Your task to perform on an android device: find snoozed emails in the gmail app Image 0: 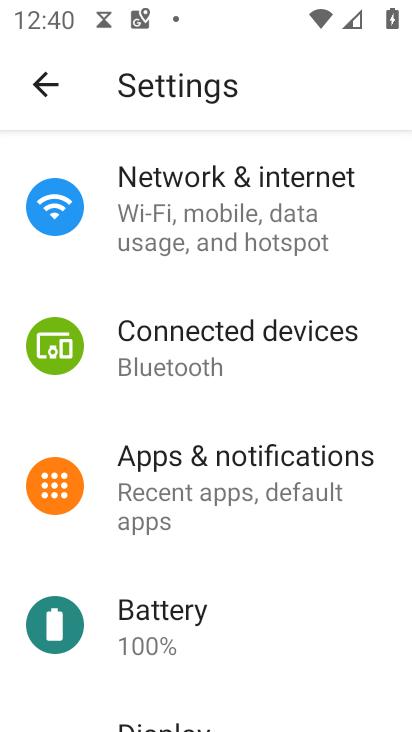
Step 0: press home button
Your task to perform on an android device: find snoozed emails in the gmail app Image 1: 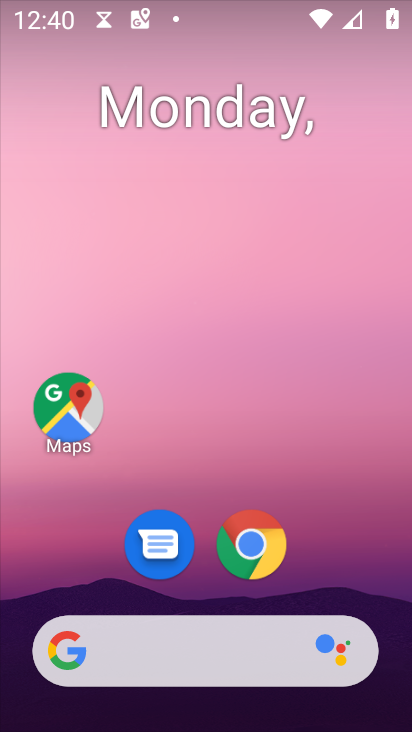
Step 1: drag from (305, 574) to (288, 307)
Your task to perform on an android device: find snoozed emails in the gmail app Image 2: 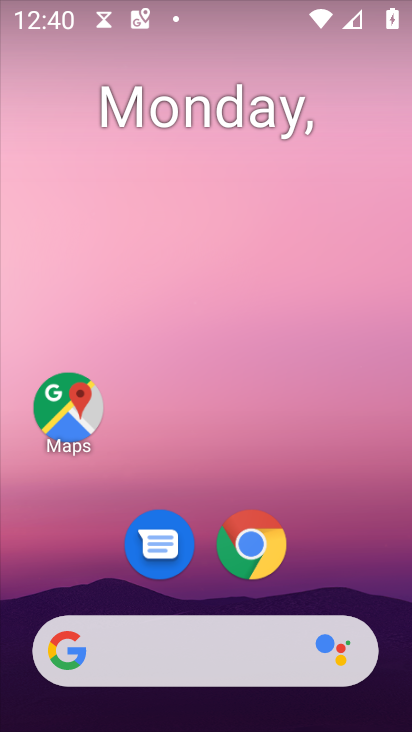
Step 2: drag from (337, 572) to (340, 230)
Your task to perform on an android device: find snoozed emails in the gmail app Image 3: 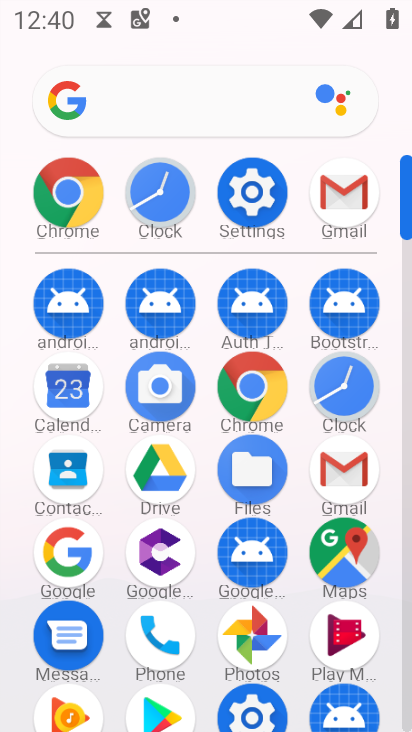
Step 3: click (335, 187)
Your task to perform on an android device: find snoozed emails in the gmail app Image 4: 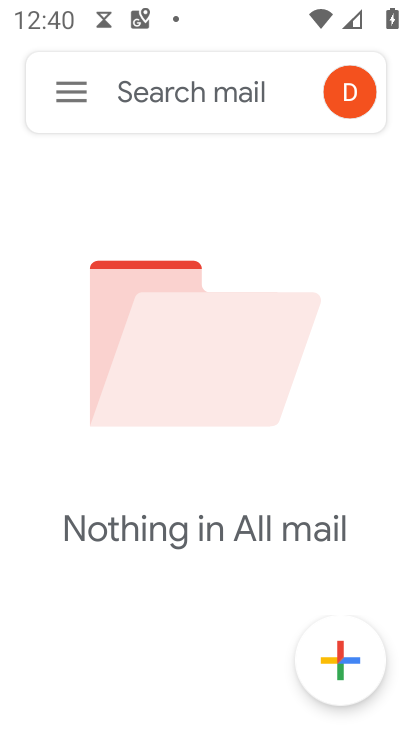
Step 4: click (64, 89)
Your task to perform on an android device: find snoozed emails in the gmail app Image 5: 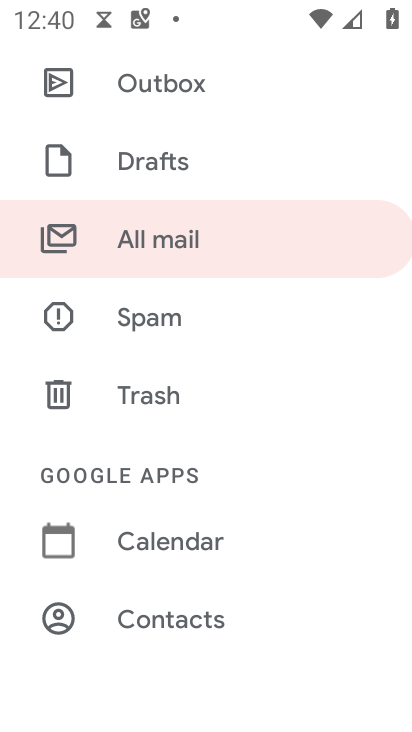
Step 5: drag from (184, 532) to (232, 113)
Your task to perform on an android device: find snoozed emails in the gmail app Image 6: 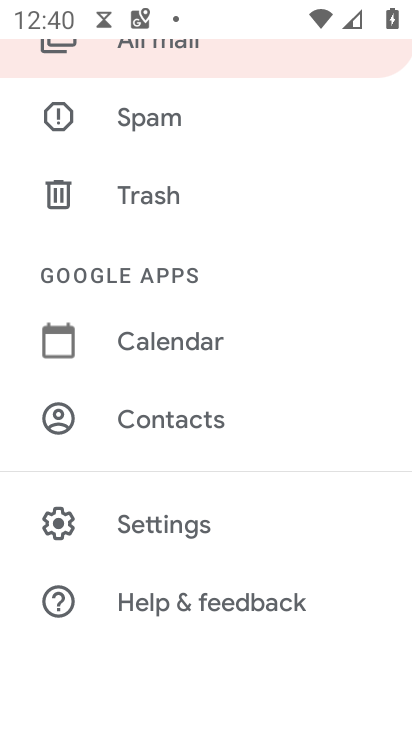
Step 6: drag from (229, 153) to (239, 401)
Your task to perform on an android device: find snoozed emails in the gmail app Image 7: 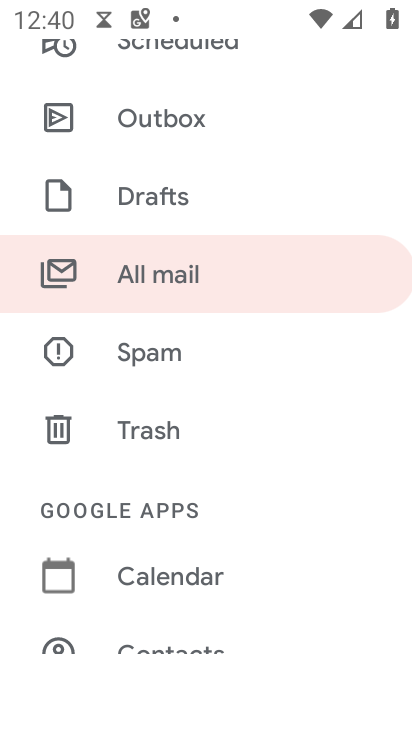
Step 7: click (239, 409)
Your task to perform on an android device: find snoozed emails in the gmail app Image 8: 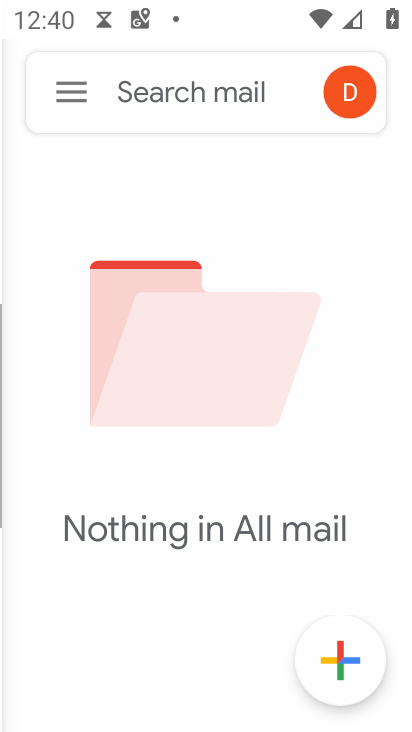
Step 8: drag from (220, 117) to (252, 453)
Your task to perform on an android device: find snoozed emails in the gmail app Image 9: 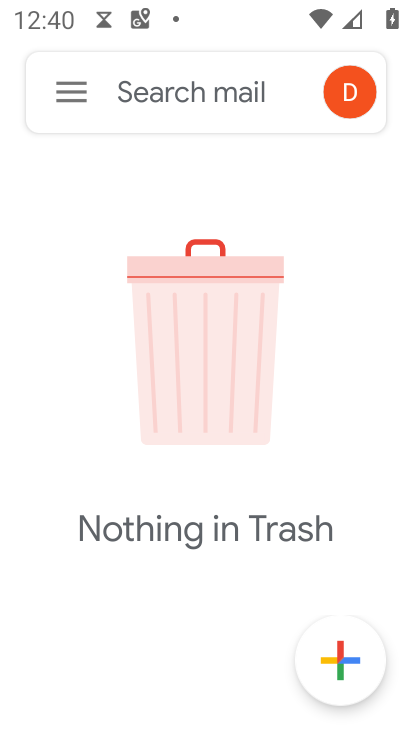
Step 9: click (78, 80)
Your task to perform on an android device: find snoozed emails in the gmail app Image 10: 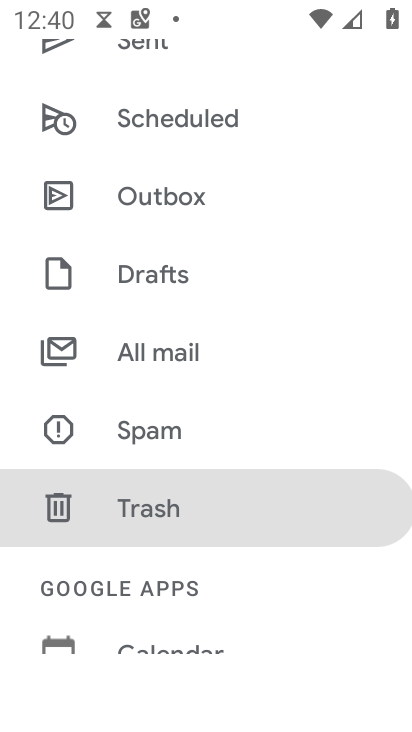
Step 10: drag from (247, 170) to (271, 616)
Your task to perform on an android device: find snoozed emails in the gmail app Image 11: 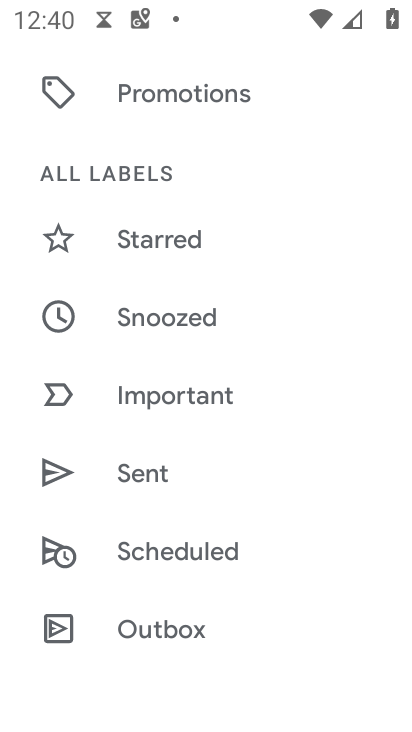
Step 11: click (190, 328)
Your task to perform on an android device: find snoozed emails in the gmail app Image 12: 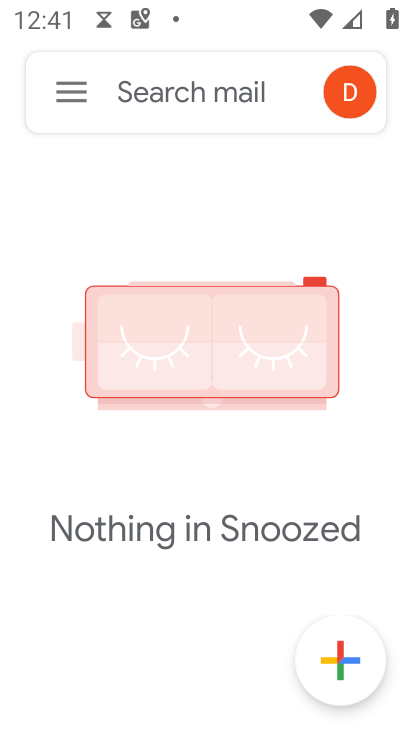
Step 12: task complete